Your task to perform on an android device: Show the shopping cart on target. Search for alienware aurora on target, select the first entry, add it to the cart, then select checkout. Image 0: 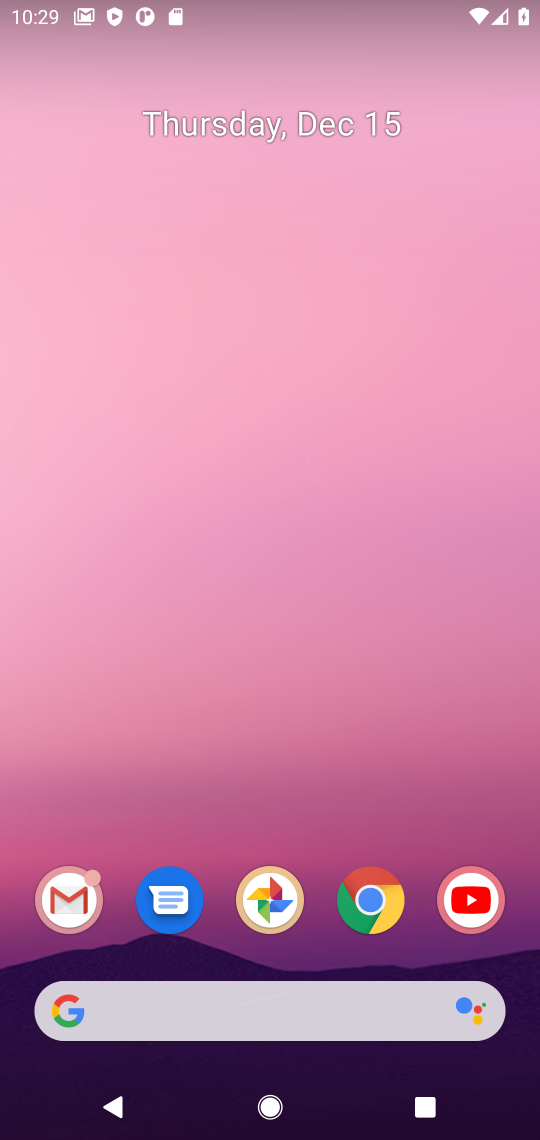
Step 0: click (386, 892)
Your task to perform on an android device: Show the shopping cart on target. Search for alienware aurora on target, select the first entry, add it to the cart, then select checkout. Image 1: 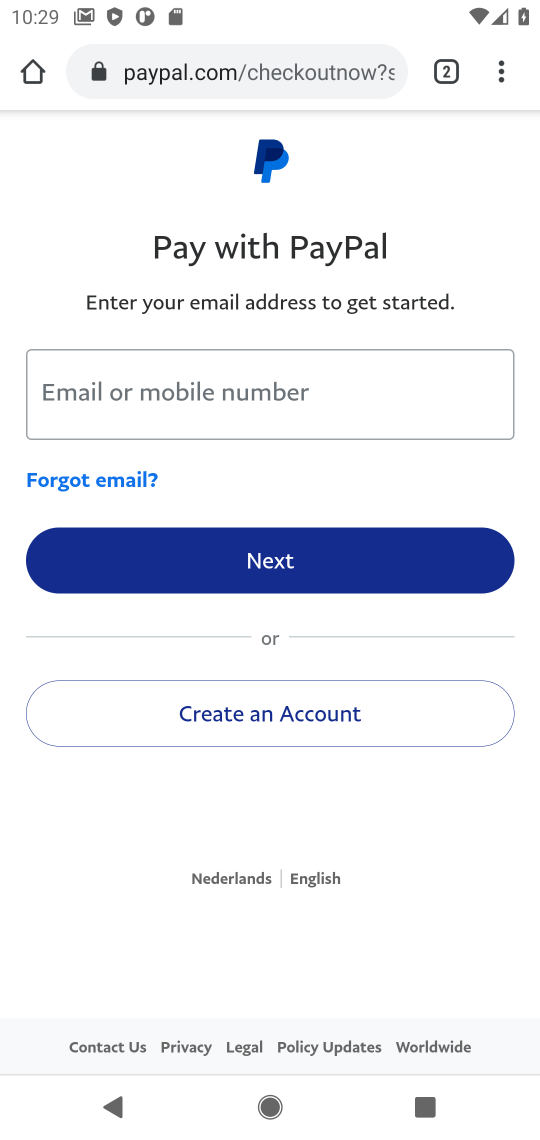
Step 1: click (240, 76)
Your task to perform on an android device: Show the shopping cart on target. Search for alienware aurora on target, select the first entry, add it to the cart, then select checkout. Image 2: 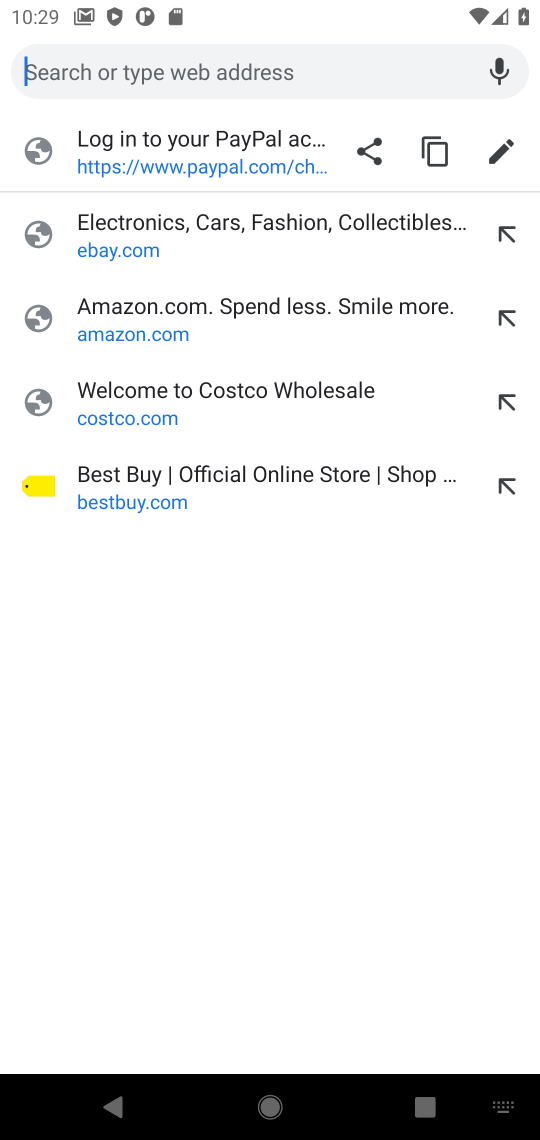
Step 2: type "target"
Your task to perform on an android device: Show the shopping cart on target. Search for alienware aurora on target, select the first entry, add it to the cart, then select checkout. Image 3: 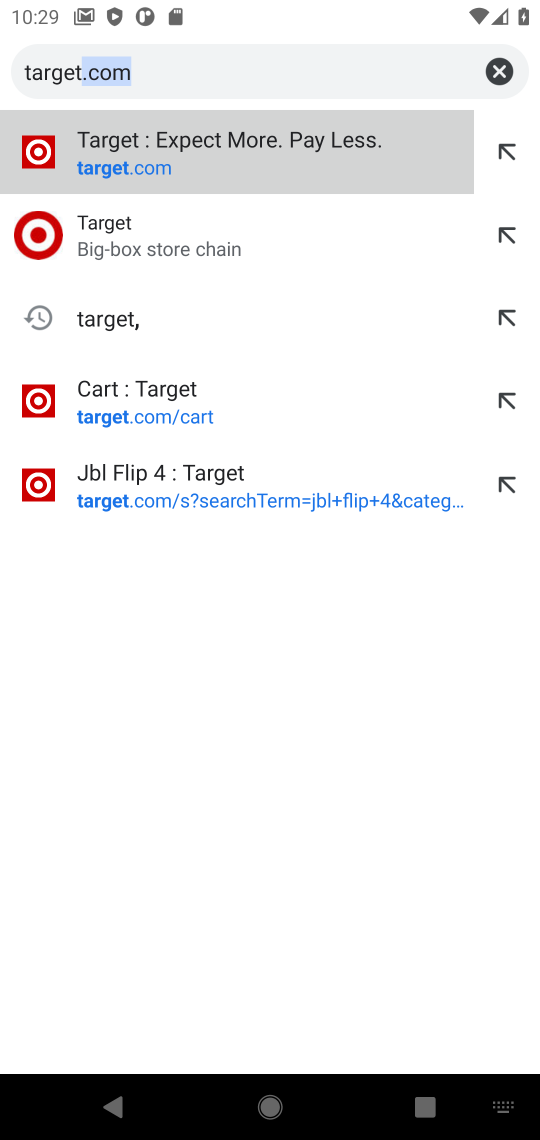
Step 3: click (183, 158)
Your task to perform on an android device: Show the shopping cart on target. Search for alienware aurora on target, select the first entry, add it to the cart, then select checkout. Image 4: 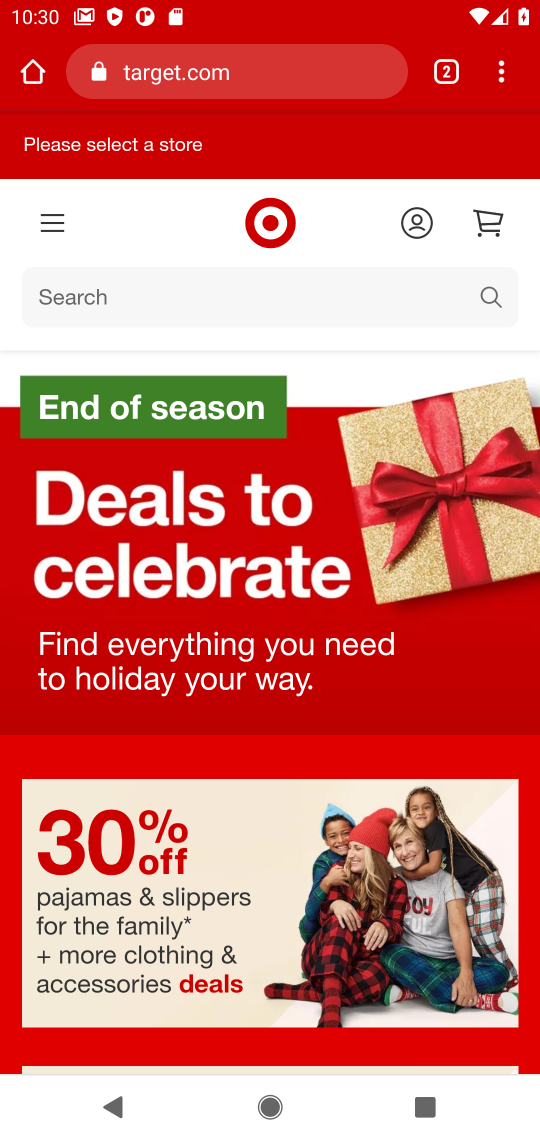
Step 4: click (486, 224)
Your task to perform on an android device: Show the shopping cart on target. Search for alienware aurora on target, select the first entry, add it to the cart, then select checkout. Image 5: 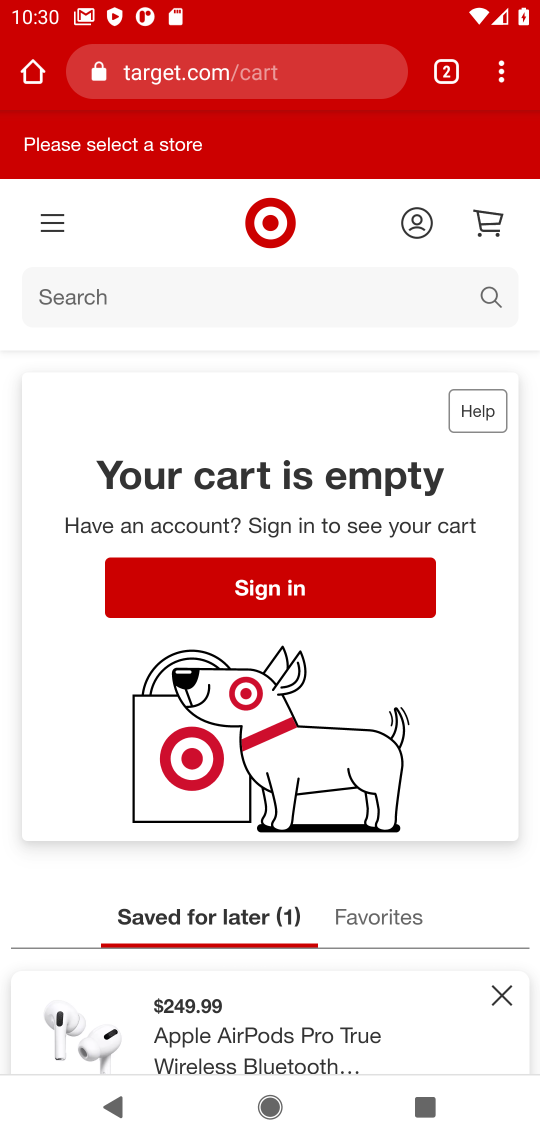
Step 5: click (212, 298)
Your task to perform on an android device: Show the shopping cart on target. Search for alienware aurora on target, select the first entry, add it to the cart, then select checkout. Image 6: 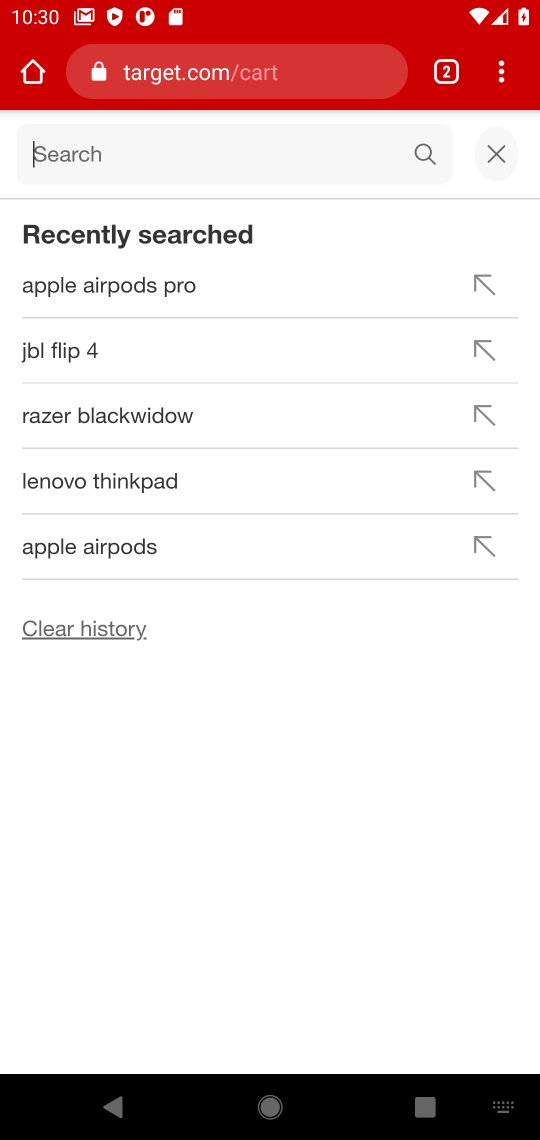
Step 6: type "alienware aurora"
Your task to perform on an android device: Show the shopping cart on target. Search for alienware aurora on target, select the first entry, add it to the cart, then select checkout. Image 7: 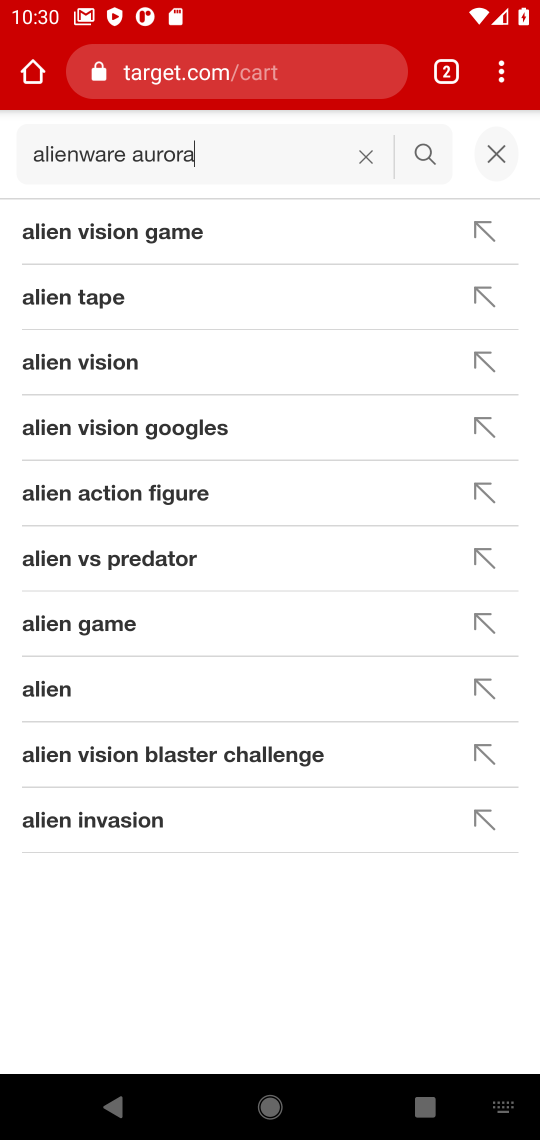
Step 7: press enter
Your task to perform on an android device: Show the shopping cart on target. Search for alienware aurora on target, select the first entry, add it to the cart, then select checkout. Image 8: 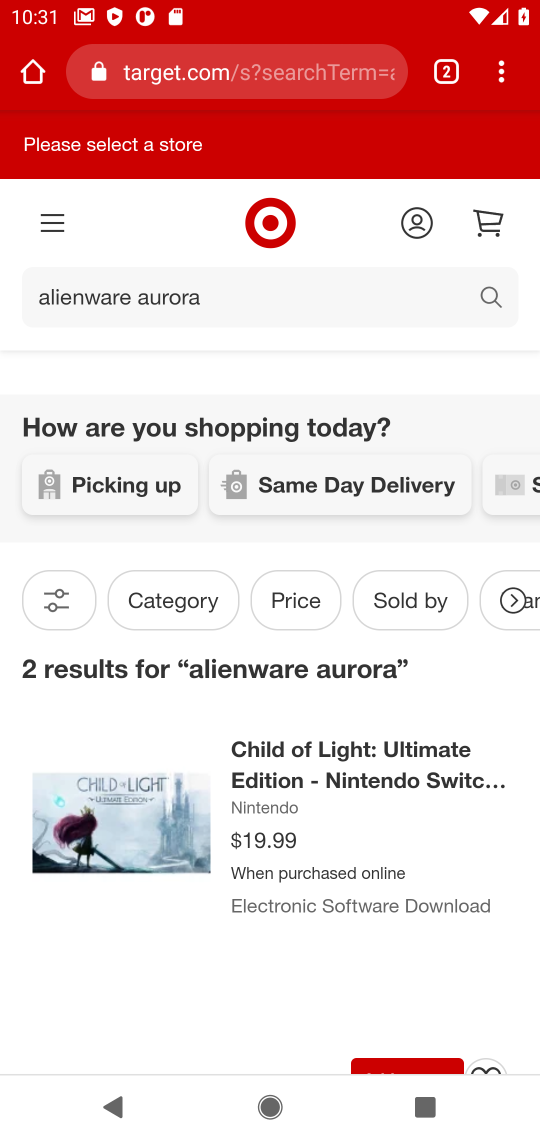
Step 8: task complete